Your task to perform on an android device: add a contact Image 0: 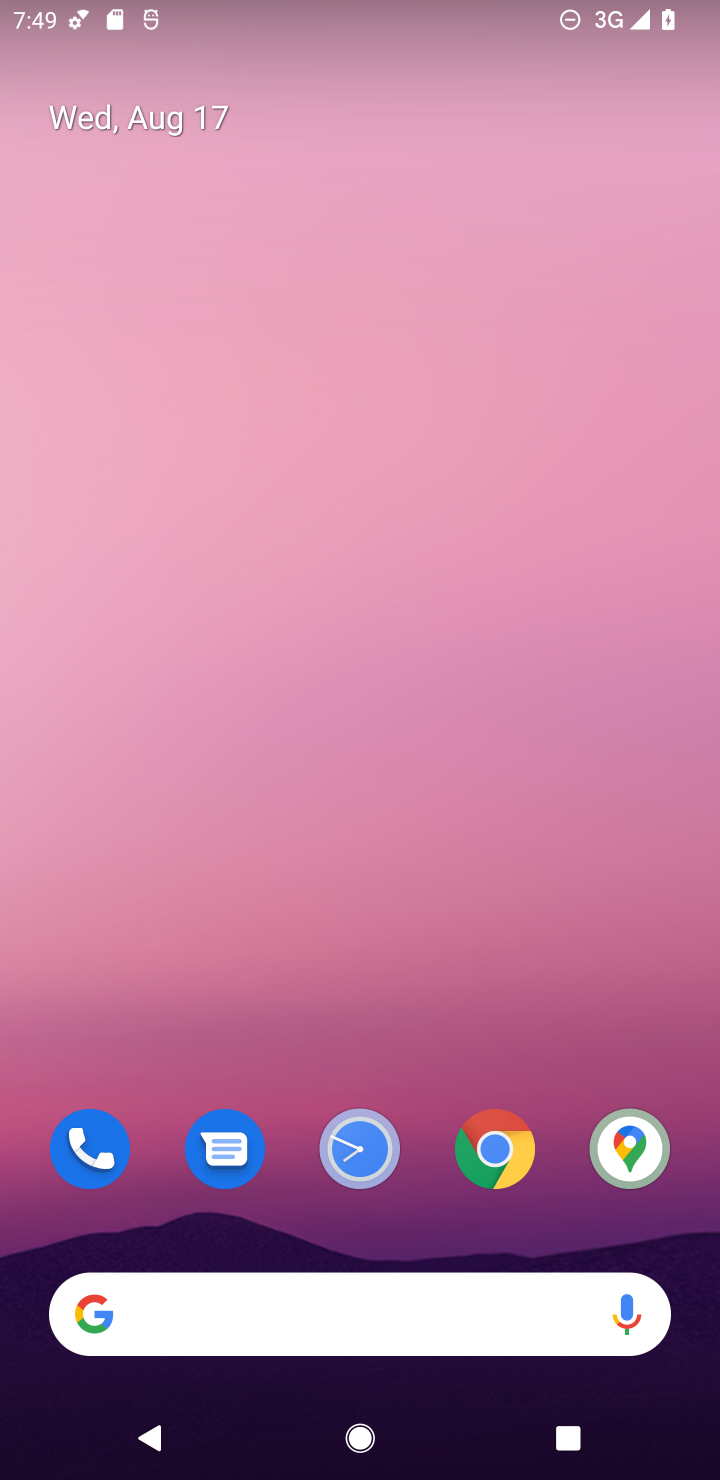
Step 0: drag from (413, 1236) to (455, 16)
Your task to perform on an android device: add a contact Image 1: 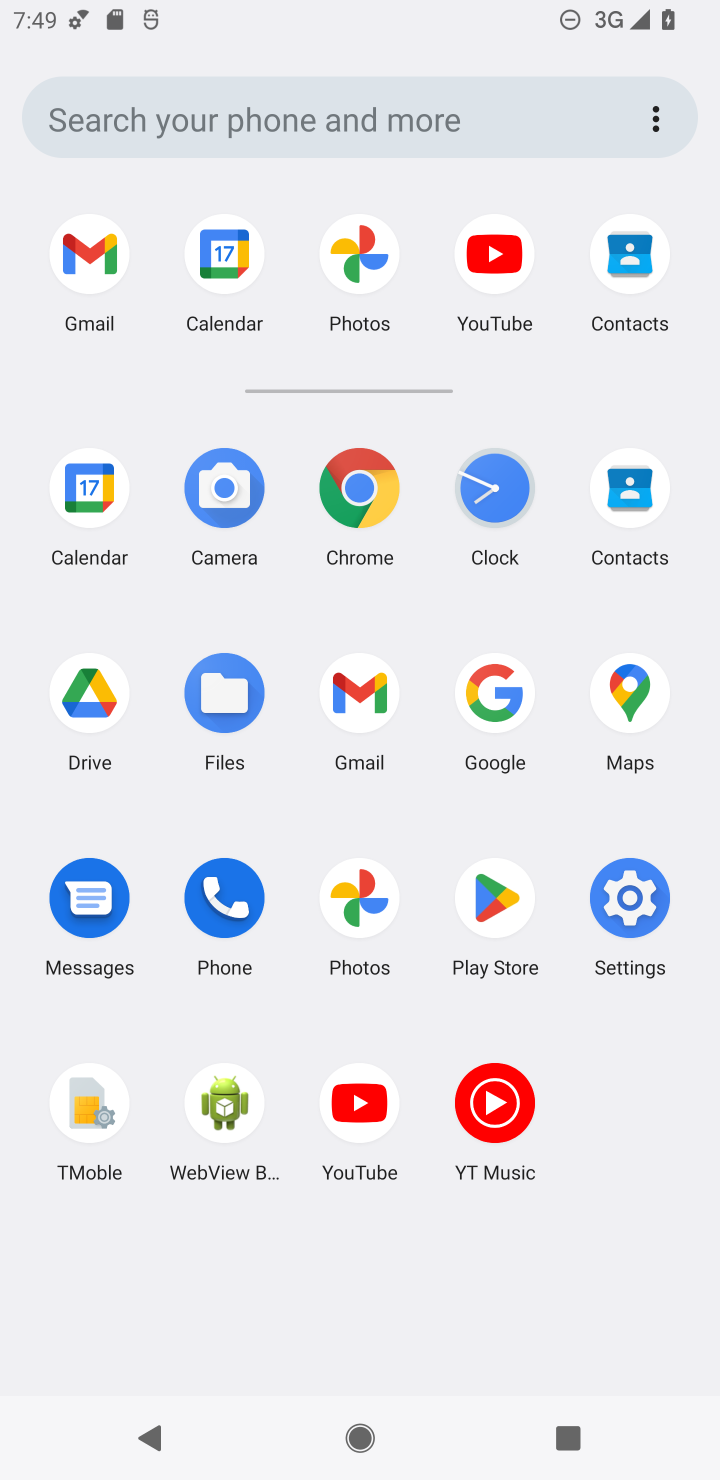
Step 1: click (622, 476)
Your task to perform on an android device: add a contact Image 2: 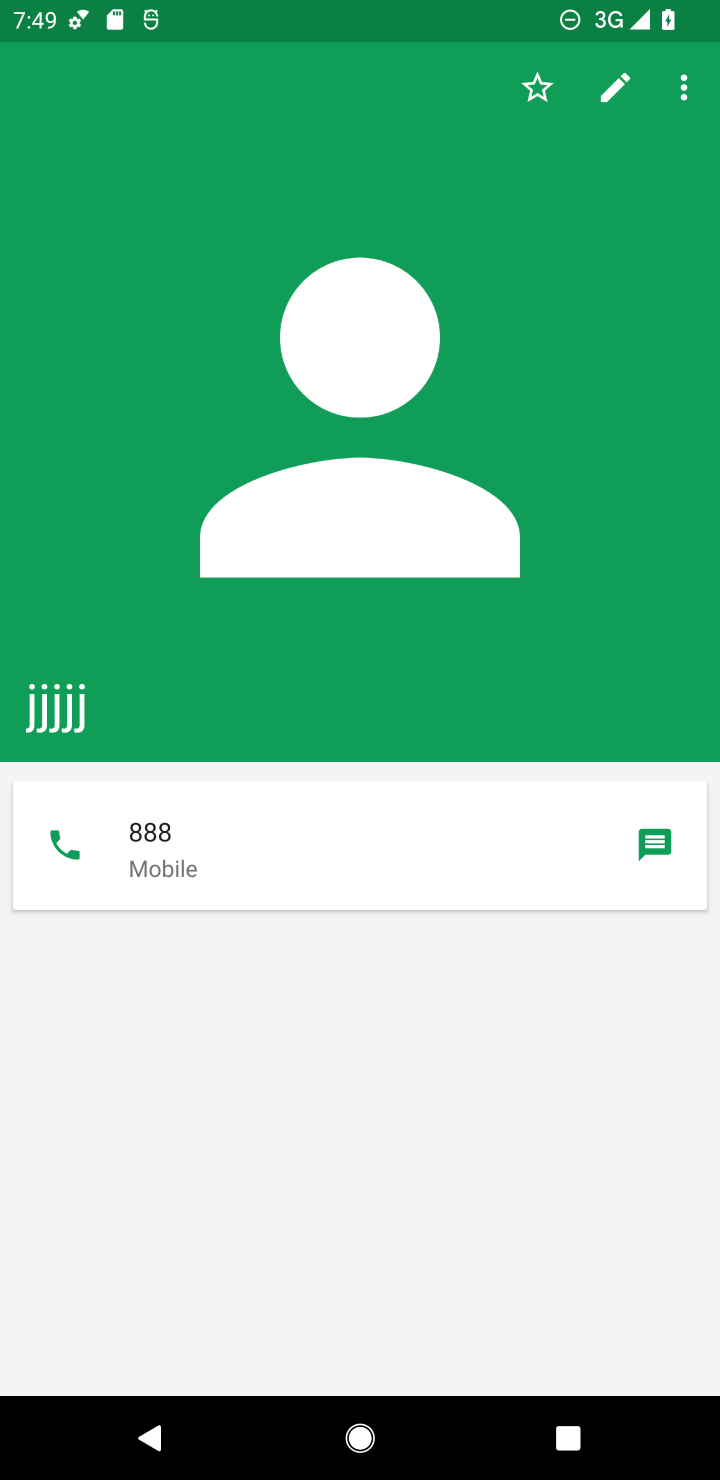
Step 2: press back button
Your task to perform on an android device: add a contact Image 3: 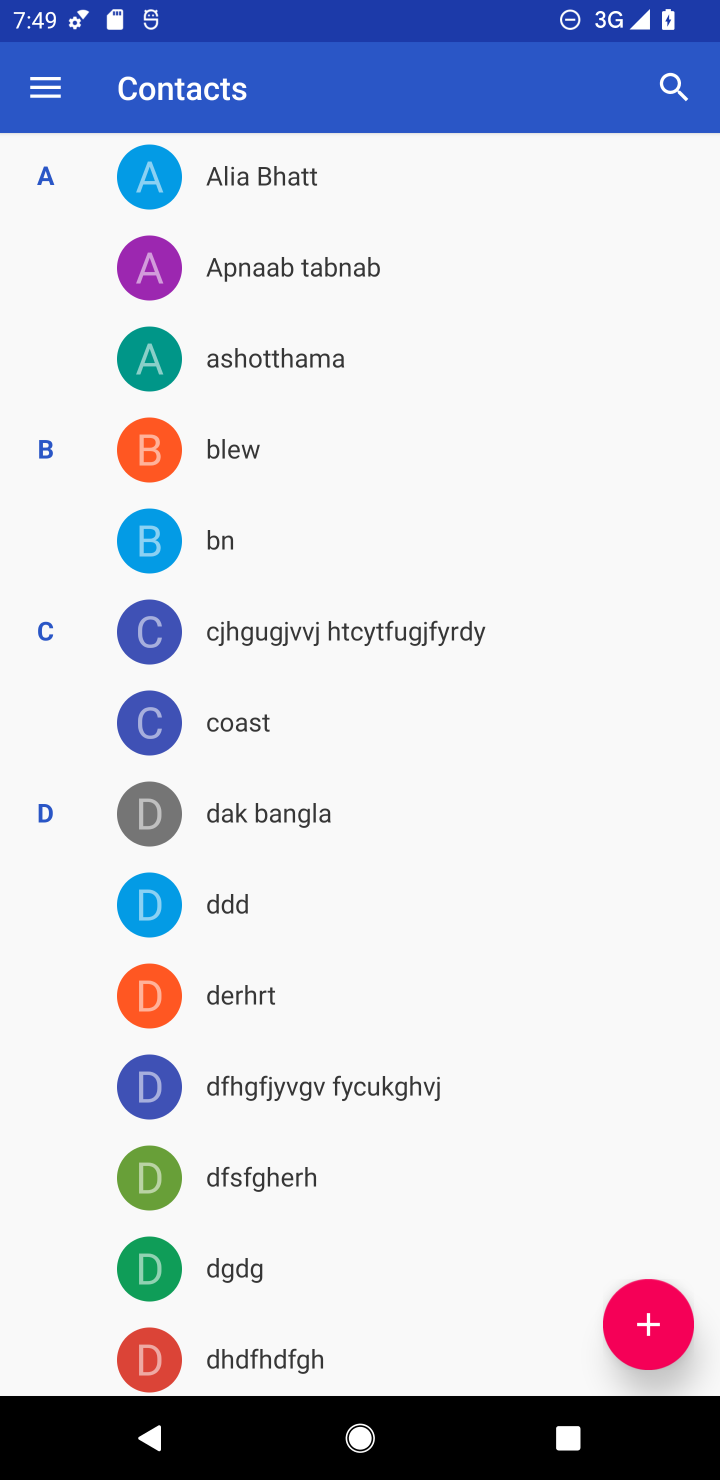
Step 3: click (644, 1330)
Your task to perform on an android device: add a contact Image 4: 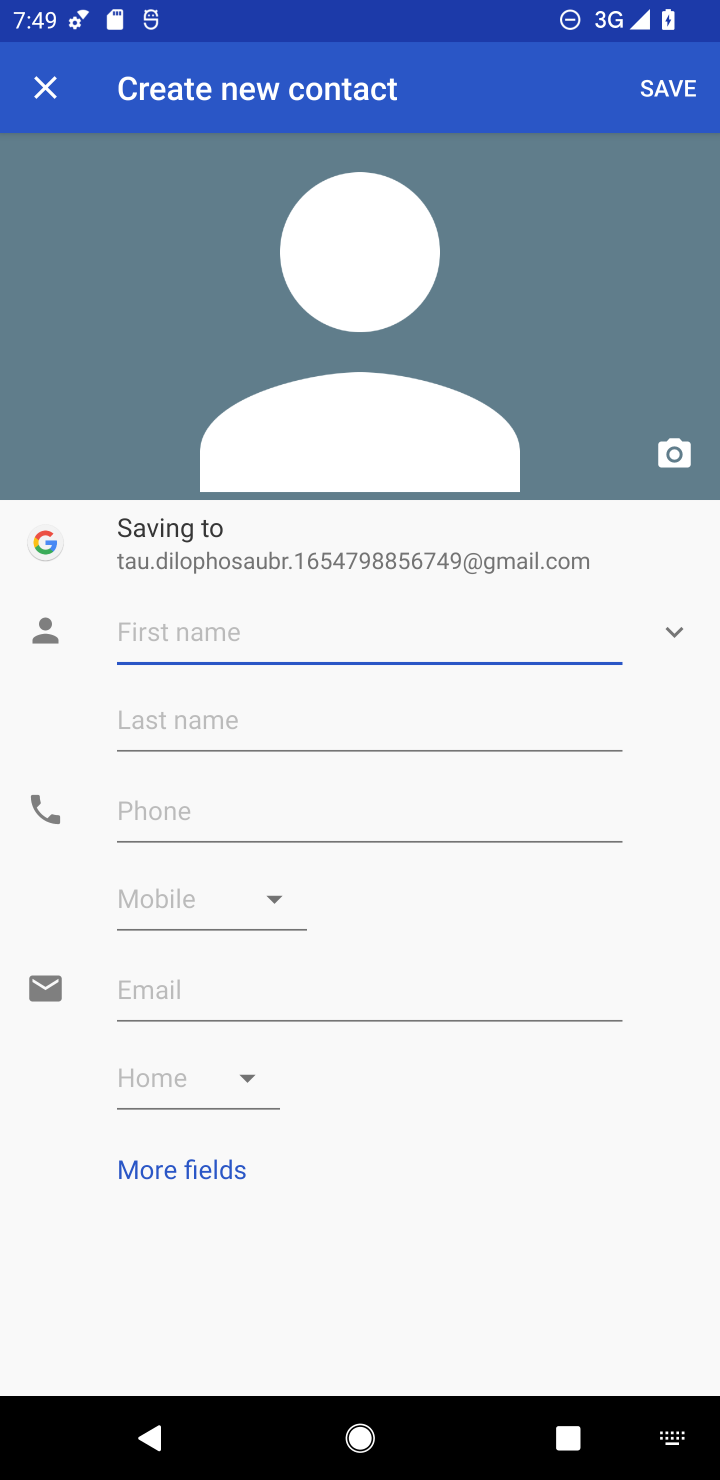
Step 4: type "mnbvcbn"
Your task to perform on an android device: add a contact Image 5: 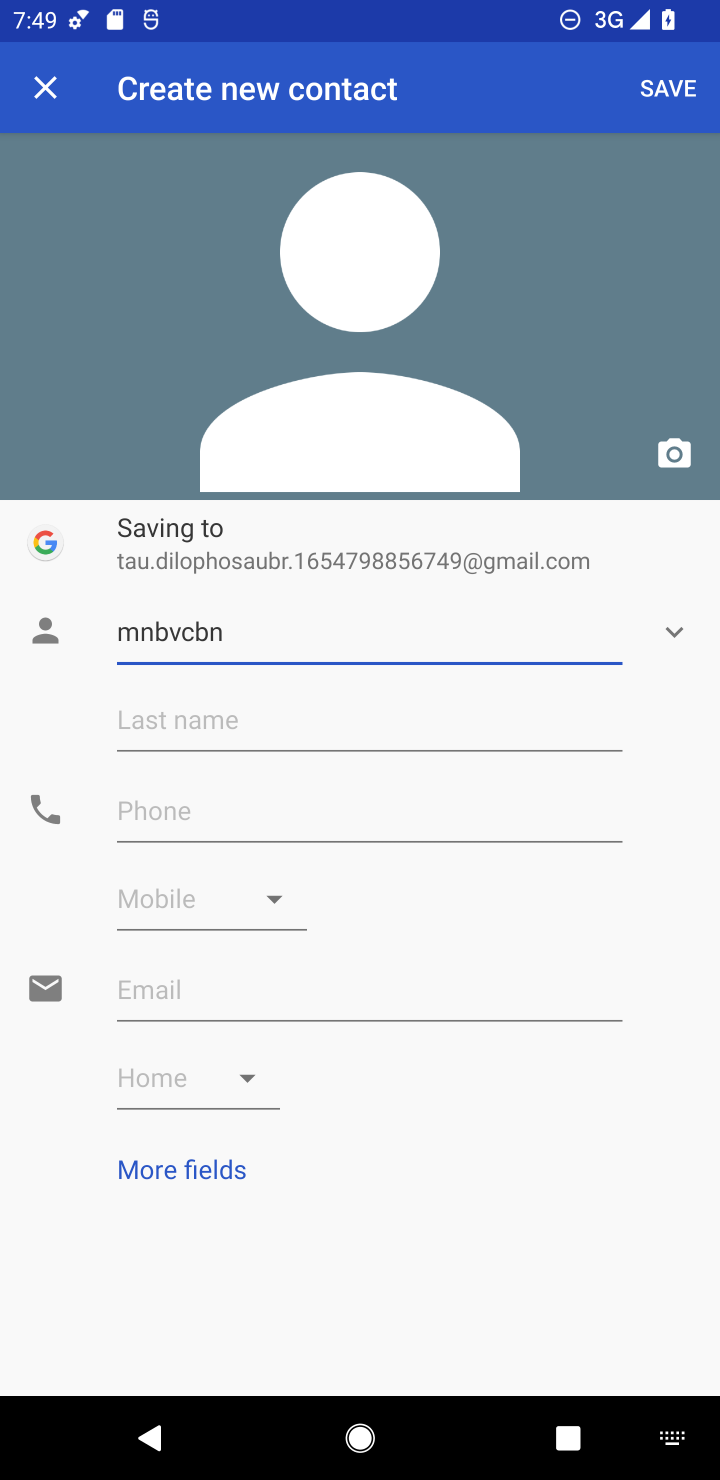
Step 5: click (170, 812)
Your task to perform on an android device: add a contact Image 6: 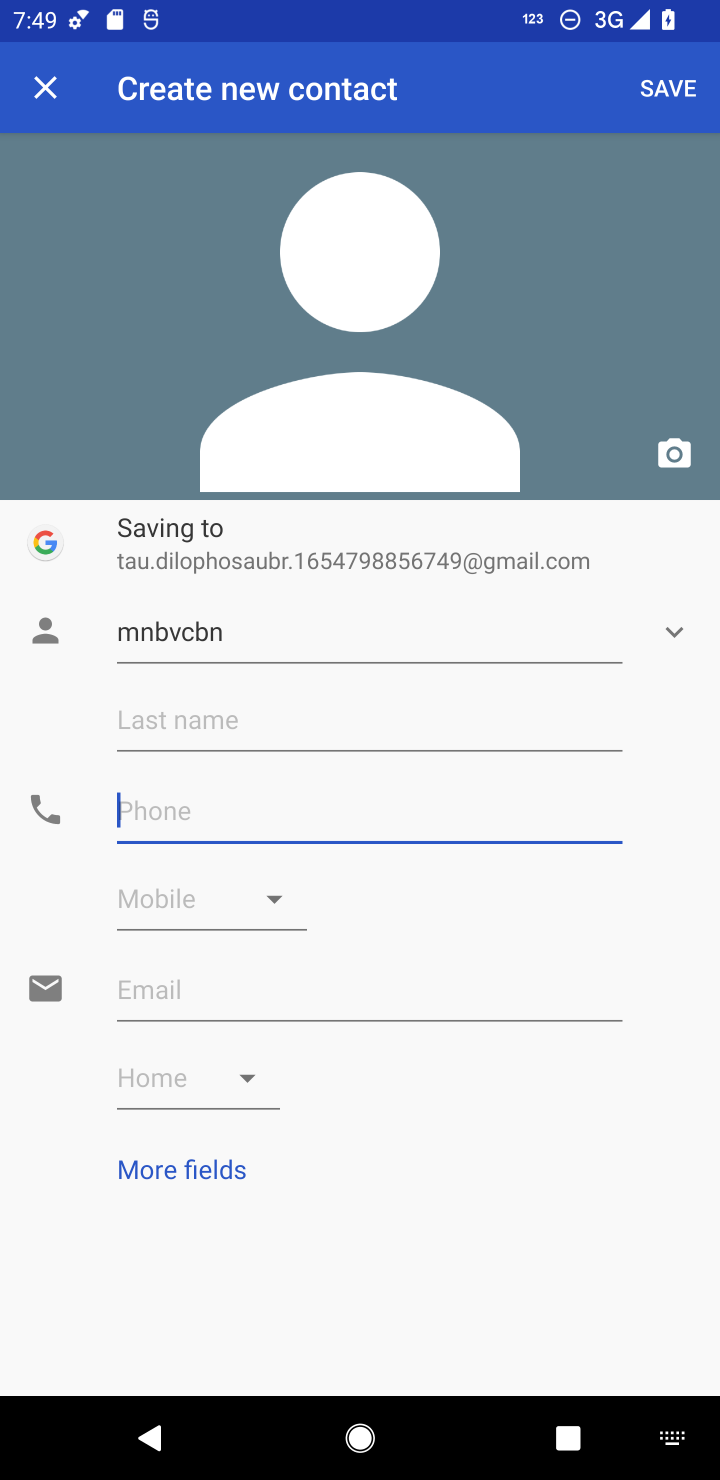
Step 6: type "7"
Your task to perform on an android device: add a contact Image 7: 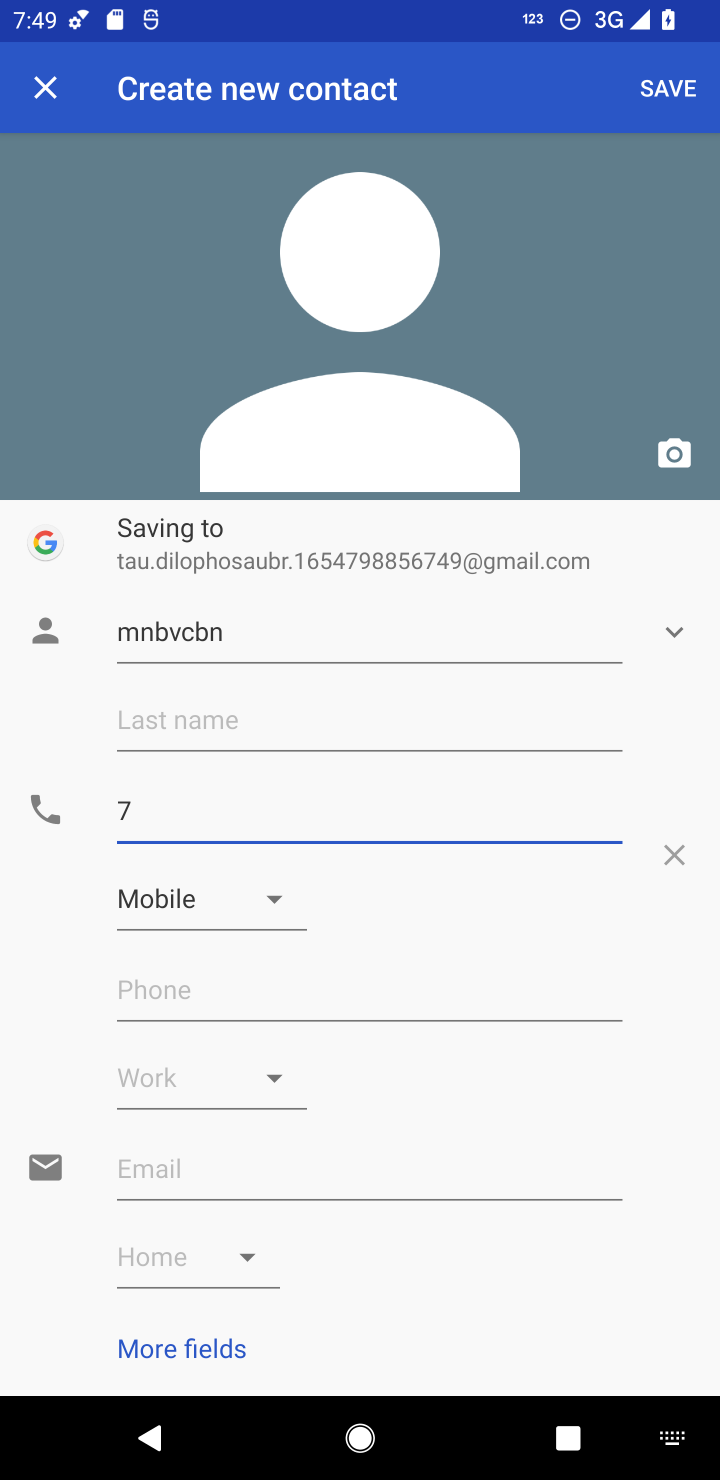
Step 7: click (673, 69)
Your task to perform on an android device: add a contact Image 8: 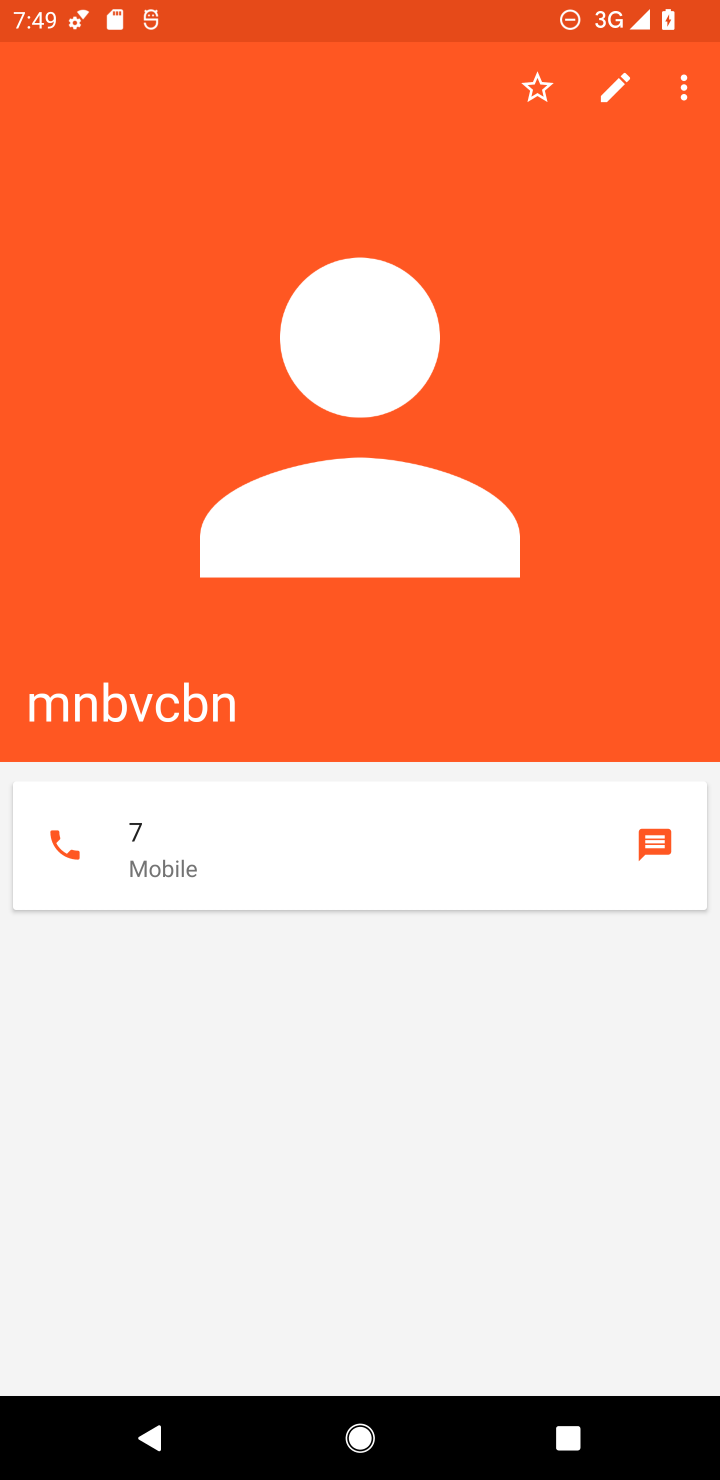
Step 8: task complete